Your task to perform on an android device: manage bookmarks in the chrome app Image 0: 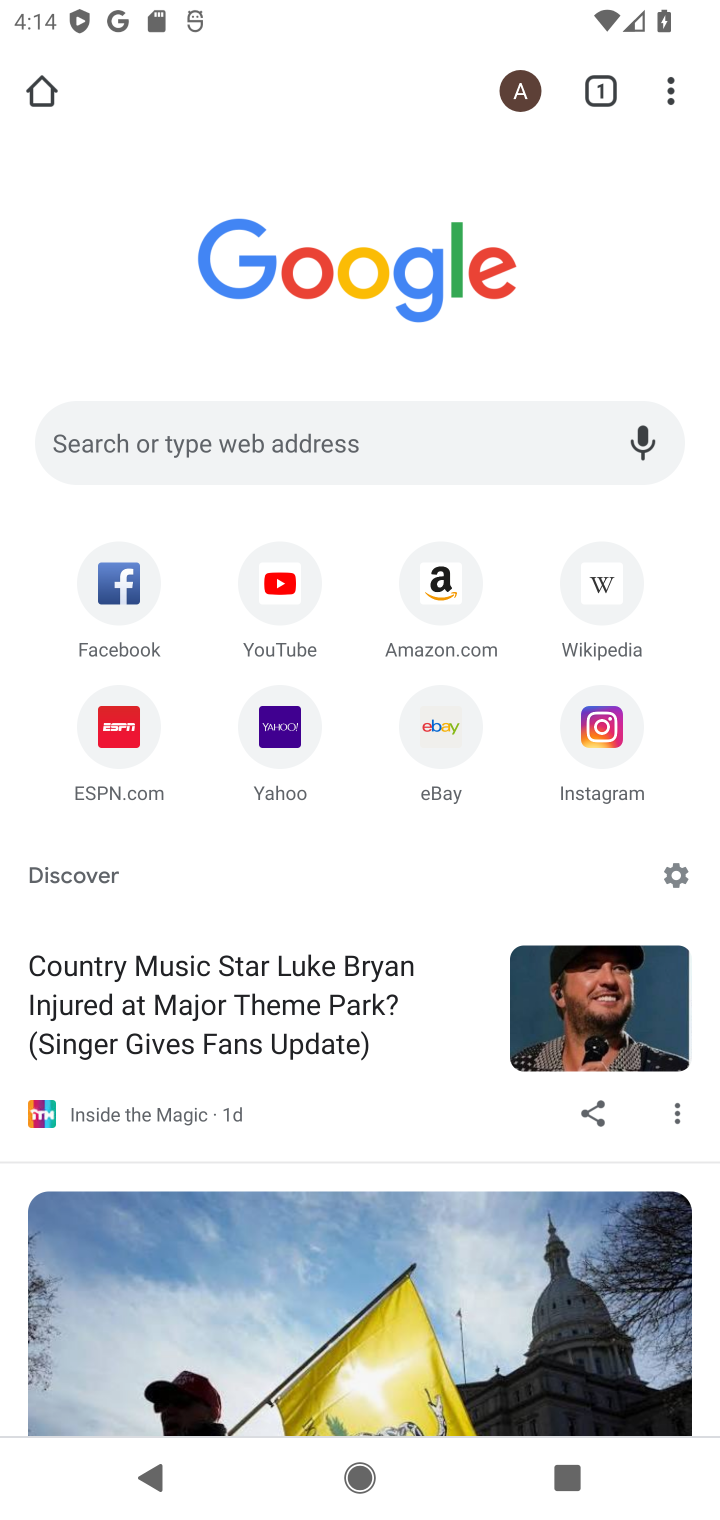
Step 0: click (671, 73)
Your task to perform on an android device: manage bookmarks in the chrome app Image 1: 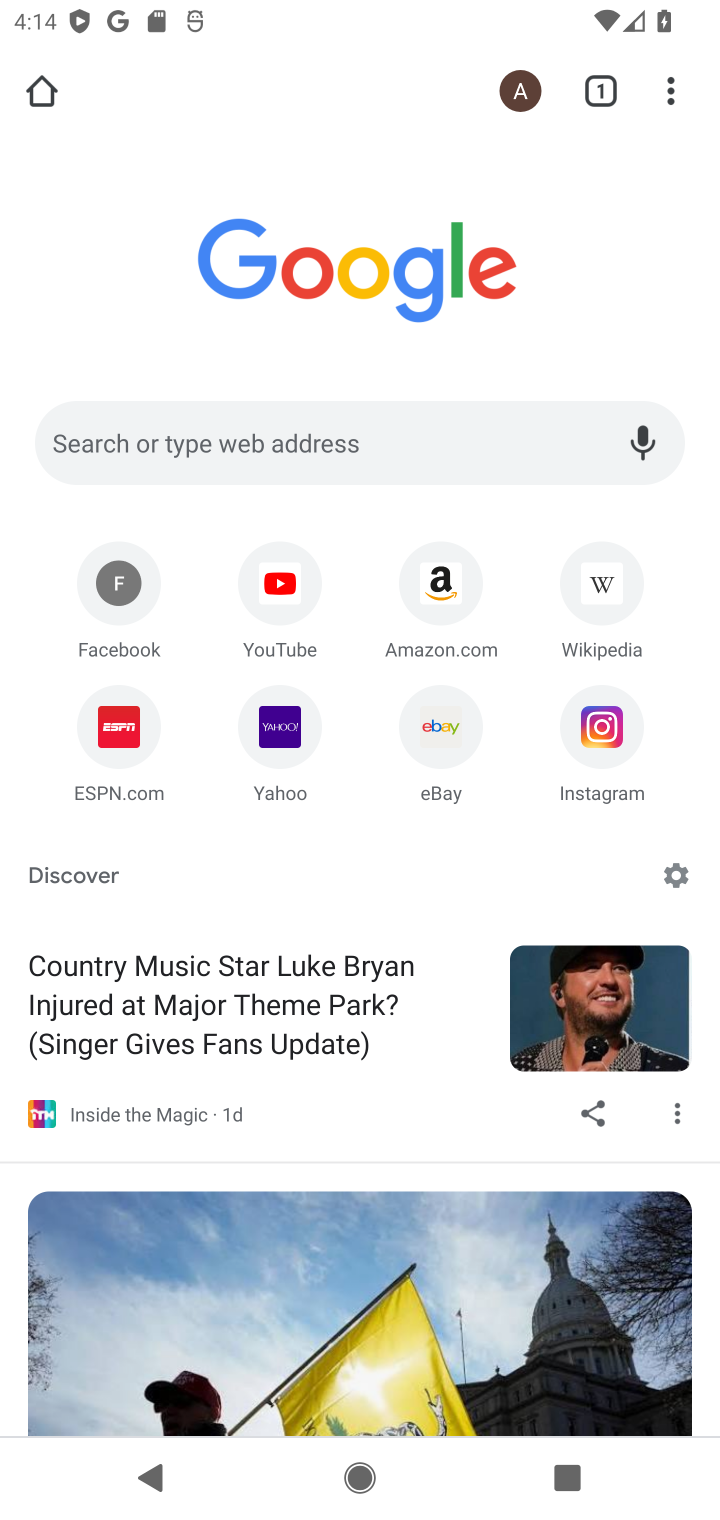
Step 1: click (689, 82)
Your task to perform on an android device: manage bookmarks in the chrome app Image 2: 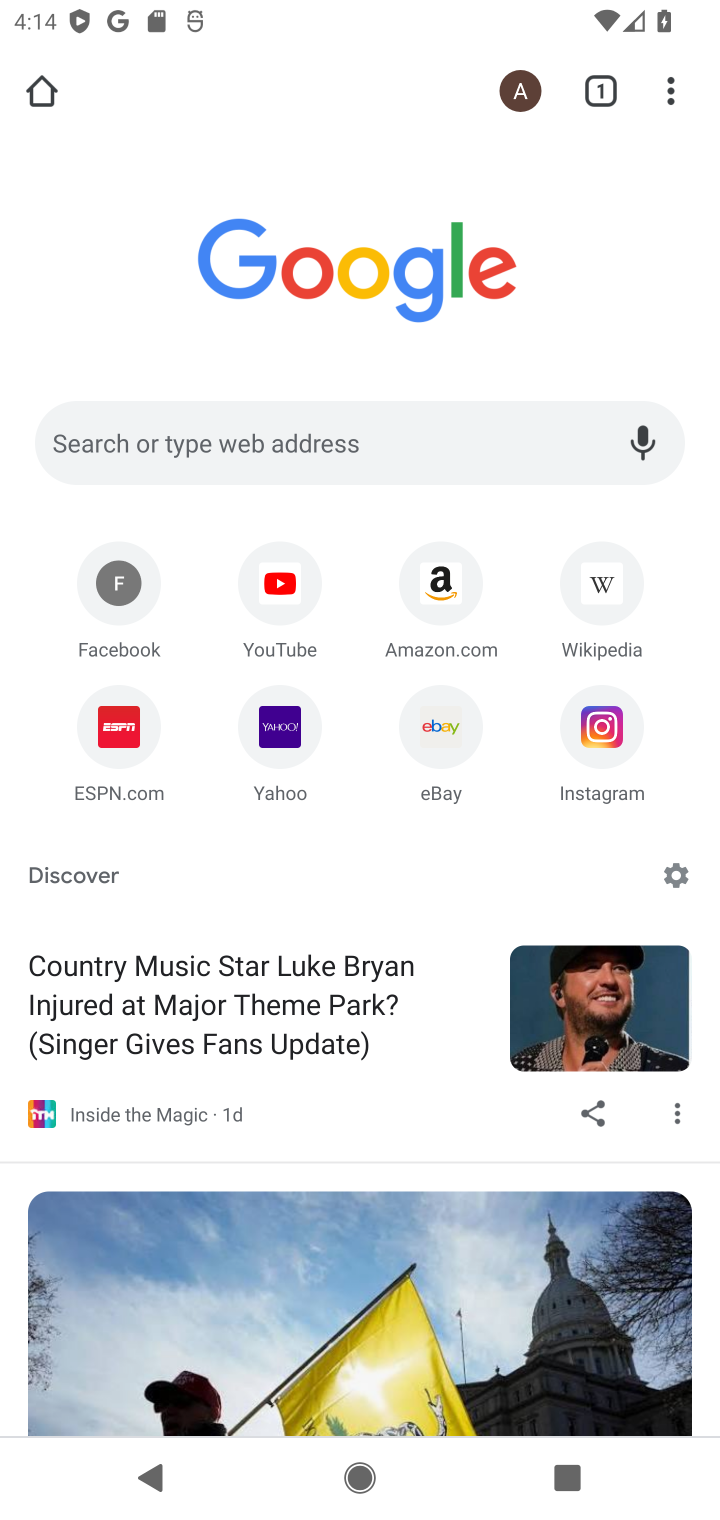
Step 2: click (714, 87)
Your task to perform on an android device: manage bookmarks in the chrome app Image 3: 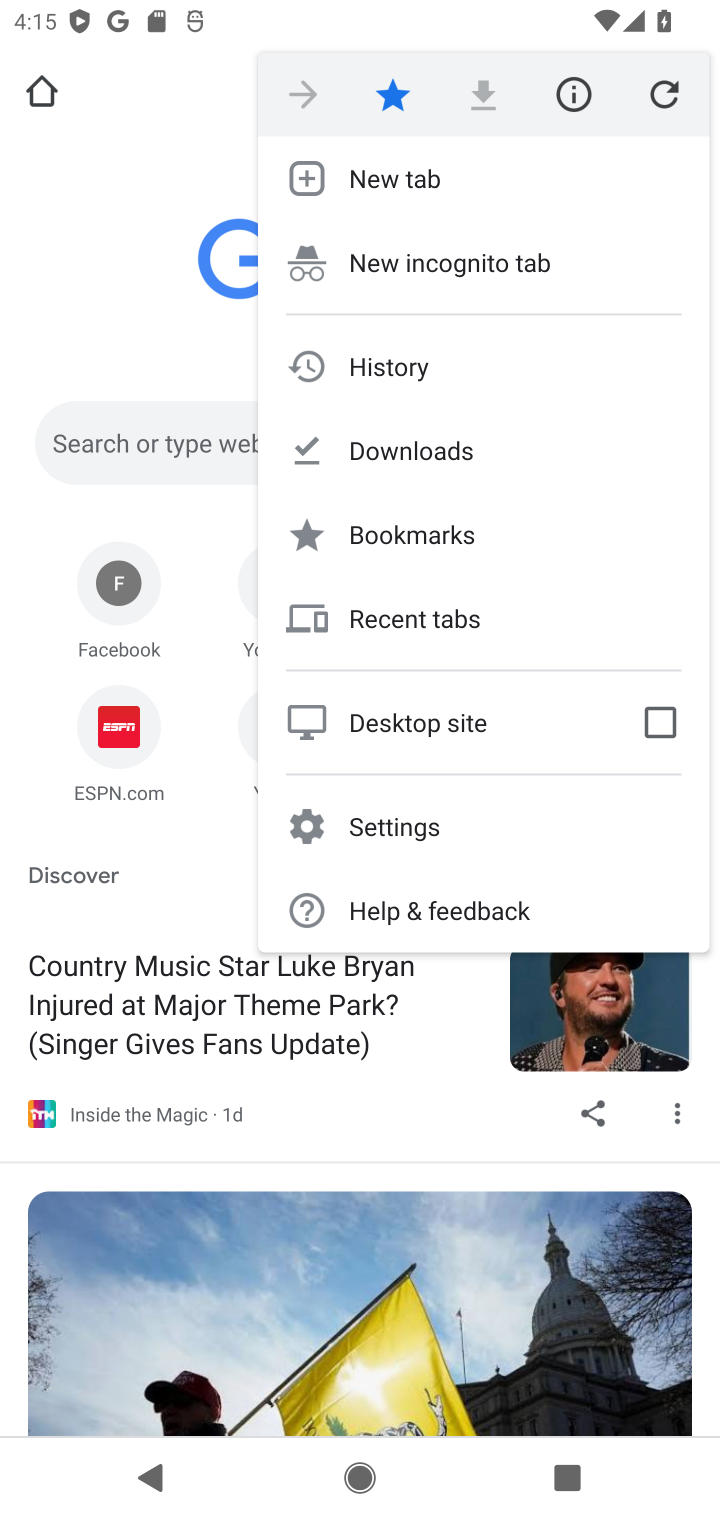
Step 3: click (385, 524)
Your task to perform on an android device: manage bookmarks in the chrome app Image 4: 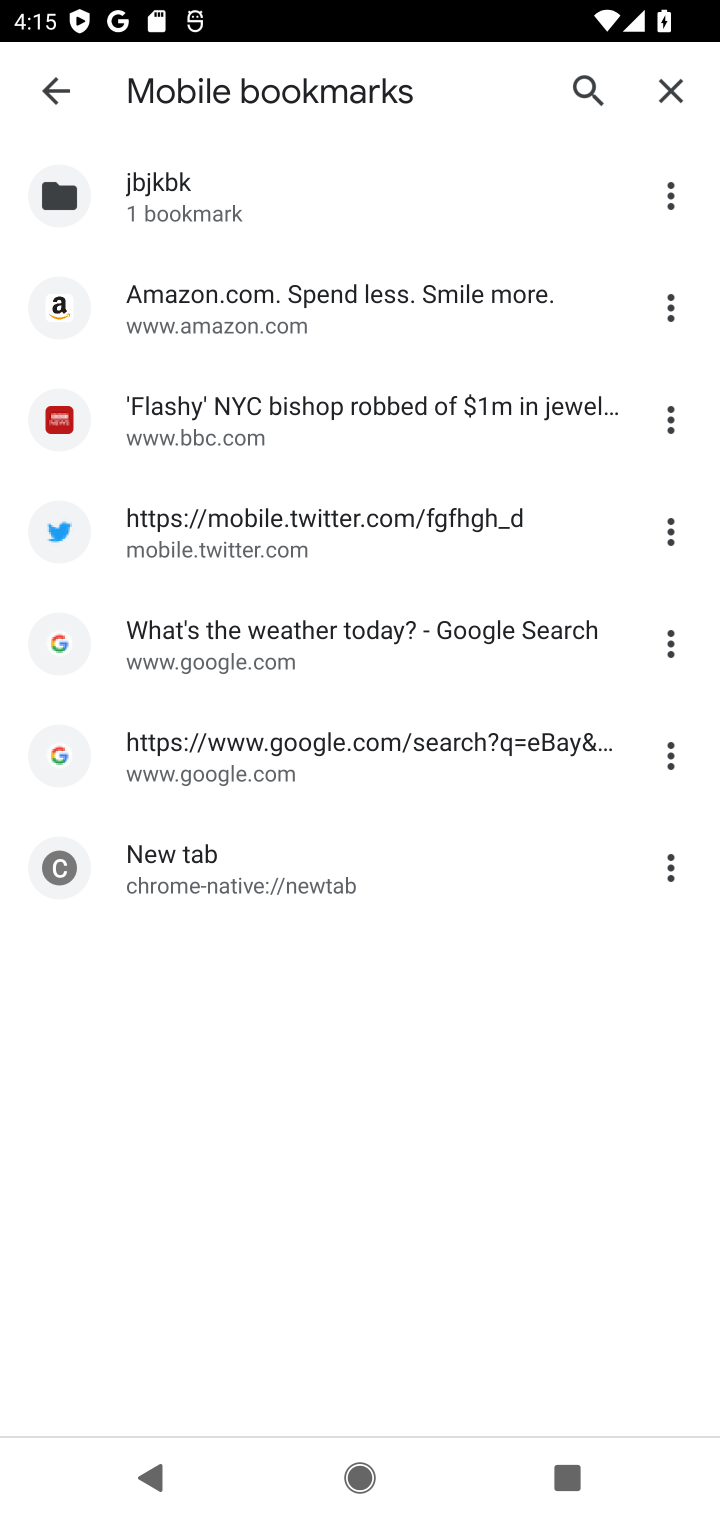
Step 4: click (671, 298)
Your task to perform on an android device: manage bookmarks in the chrome app Image 5: 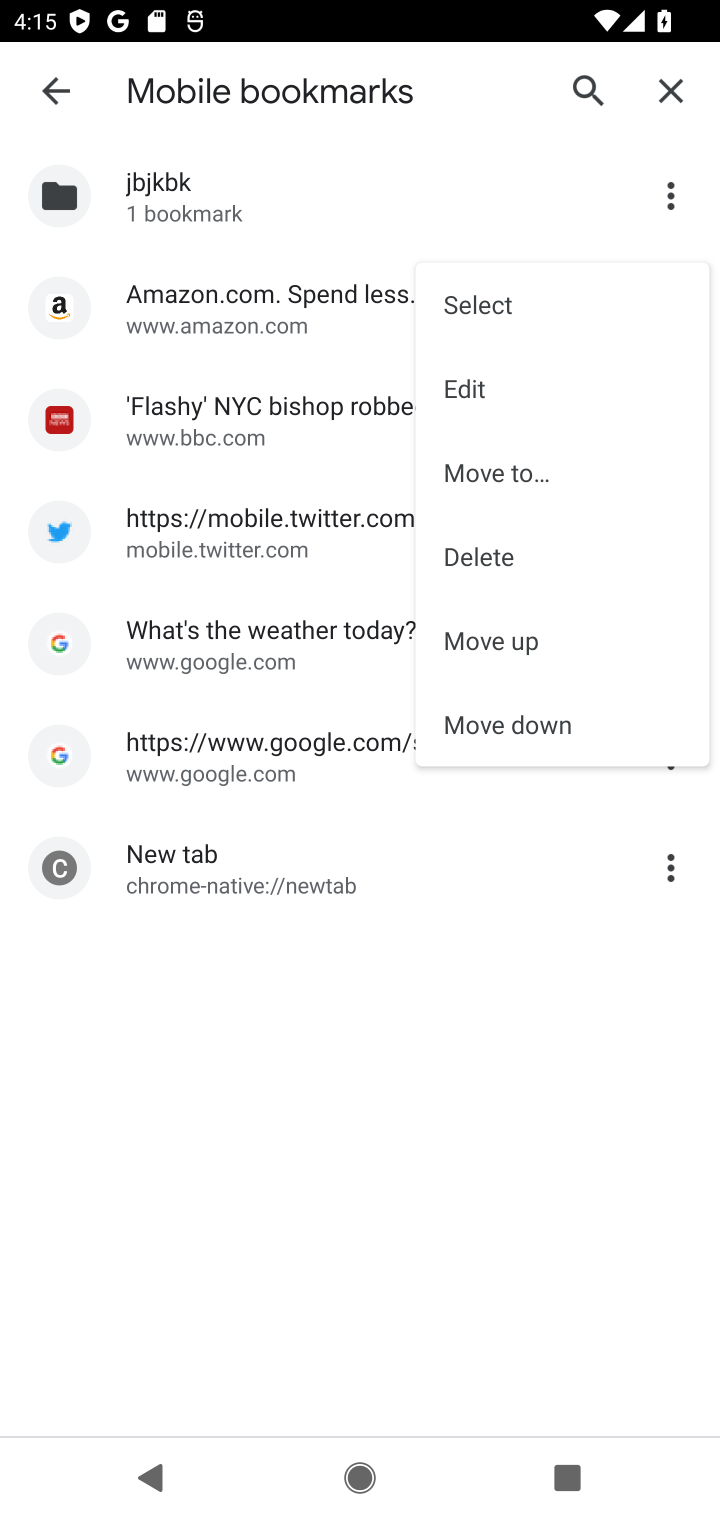
Step 5: click (531, 717)
Your task to perform on an android device: manage bookmarks in the chrome app Image 6: 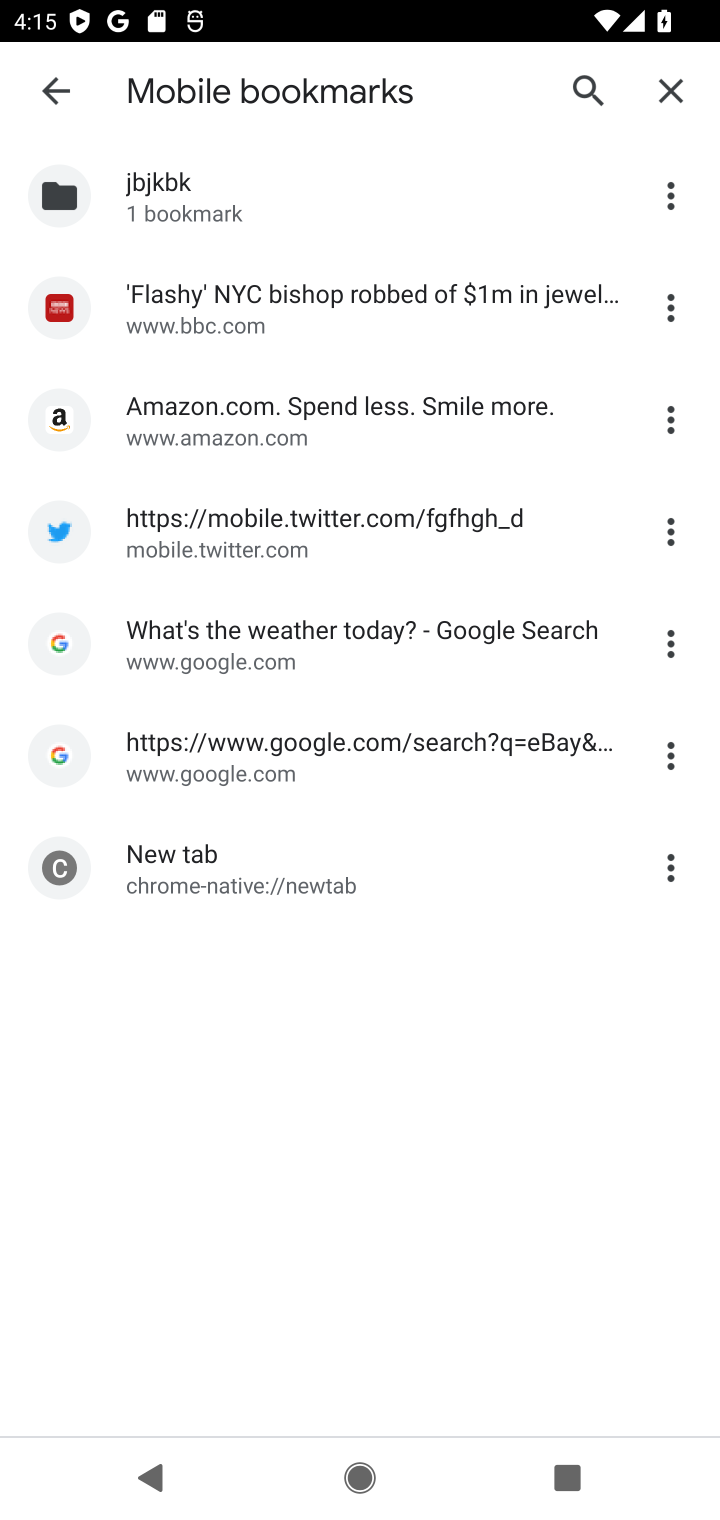
Step 6: task complete